Your task to perform on an android device: check the backup settings in the google photos Image 0: 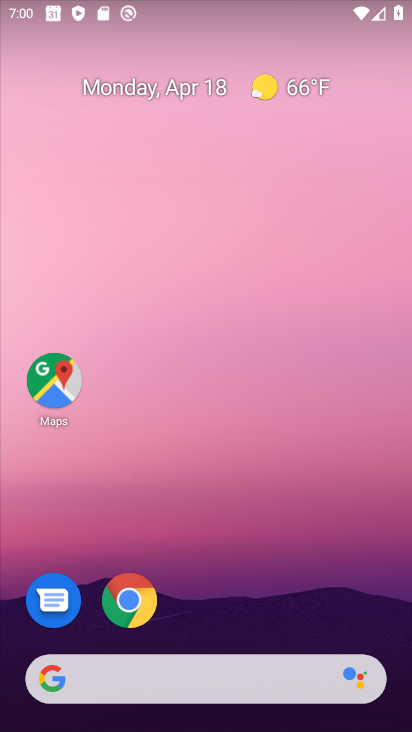
Step 0: drag from (246, 628) to (262, 3)
Your task to perform on an android device: check the backup settings in the google photos Image 1: 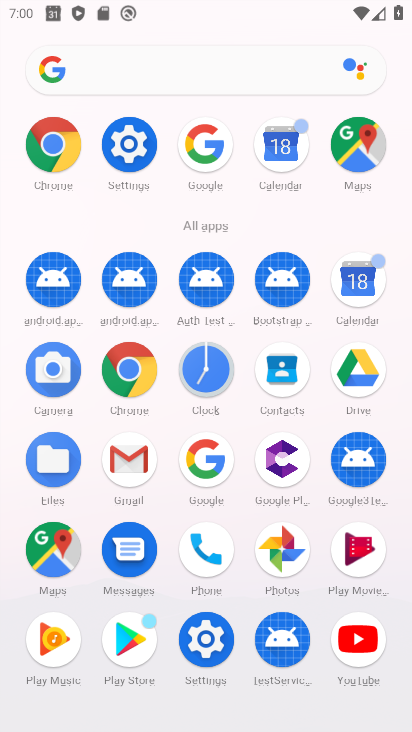
Step 1: click (278, 553)
Your task to perform on an android device: check the backup settings in the google photos Image 2: 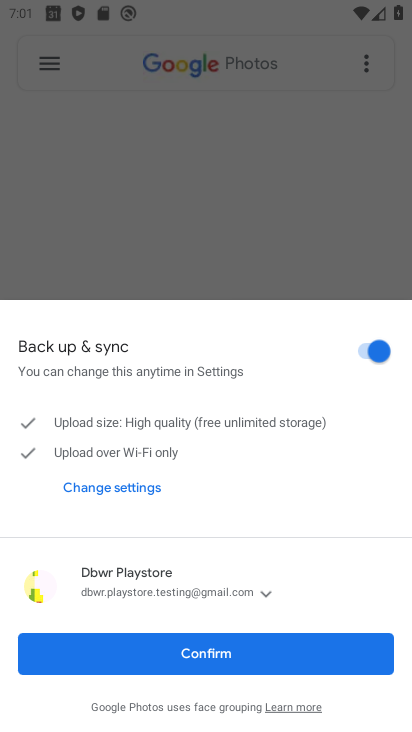
Step 2: click (192, 650)
Your task to perform on an android device: check the backup settings in the google photos Image 3: 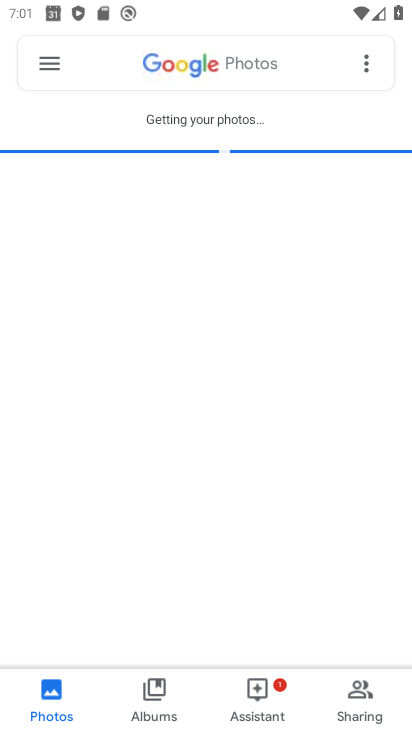
Step 3: click (55, 59)
Your task to perform on an android device: check the backup settings in the google photos Image 4: 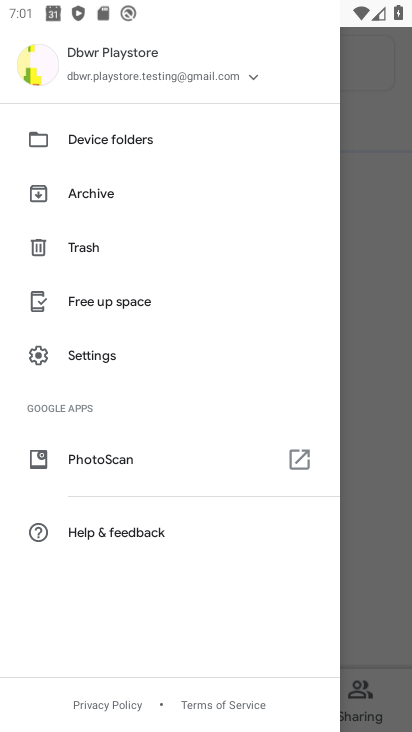
Step 4: click (98, 350)
Your task to perform on an android device: check the backup settings in the google photos Image 5: 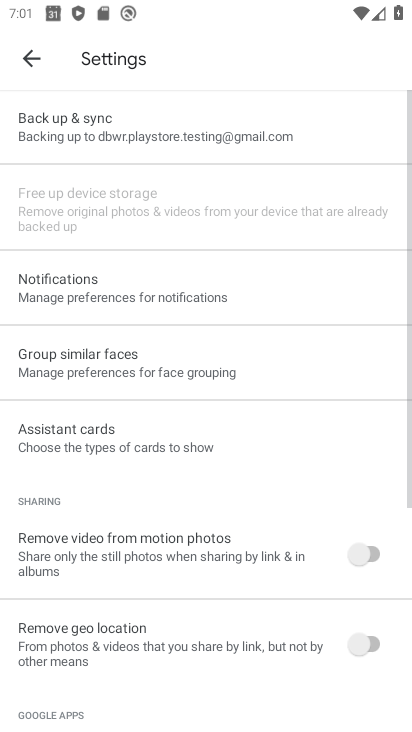
Step 5: click (86, 127)
Your task to perform on an android device: check the backup settings in the google photos Image 6: 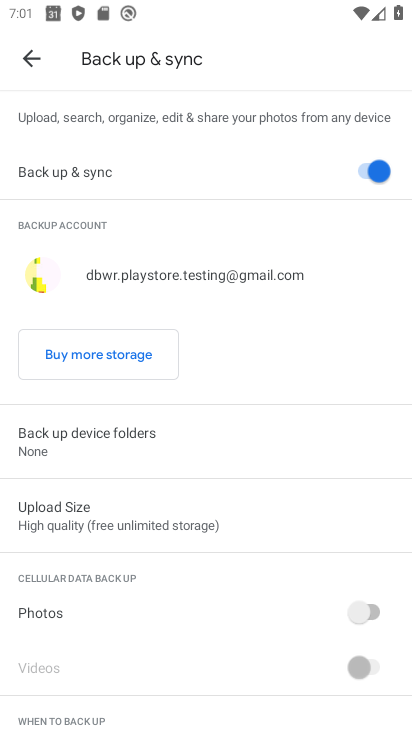
Step 6: task complete